Your task to perform on an android device: Go to display settings Image 0: 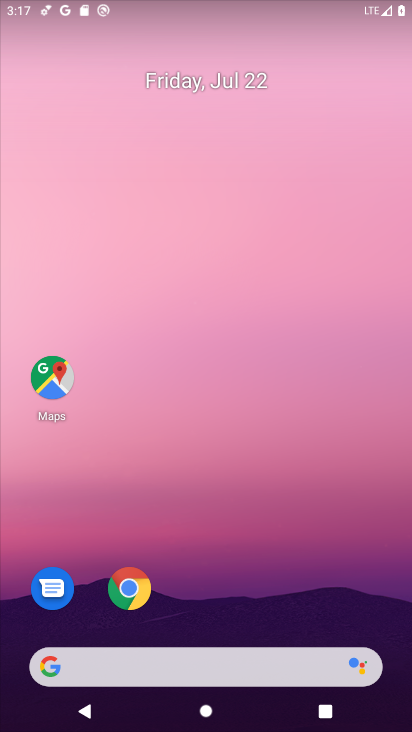
Step 0: drag from (264, 601) to (315, 170)
Your task to perform on an android device: Go to display settings Image 1: 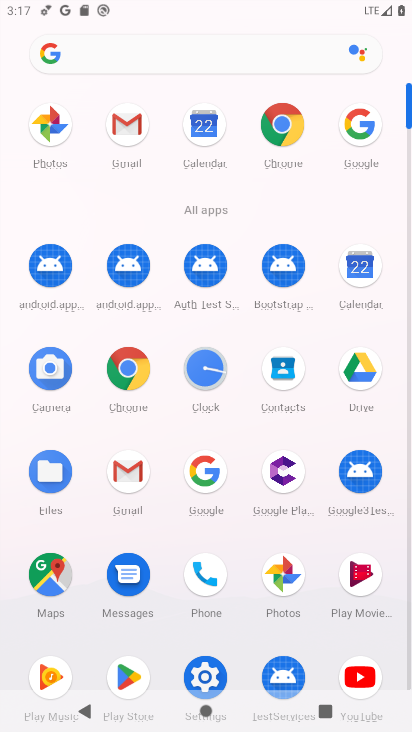
Step 1: click (211, 670)
Your task to perform on an android device: Go to display settings Image 2: 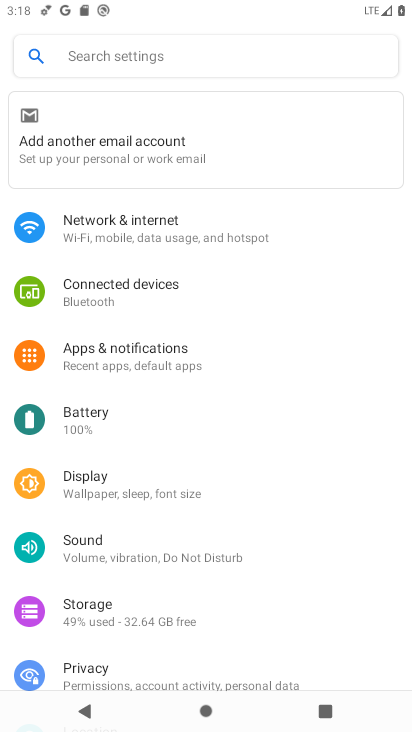
Step 2: drag from (226, 650) to (165, 268)
Your task to perform on an android device: Go to display settings Image 3: 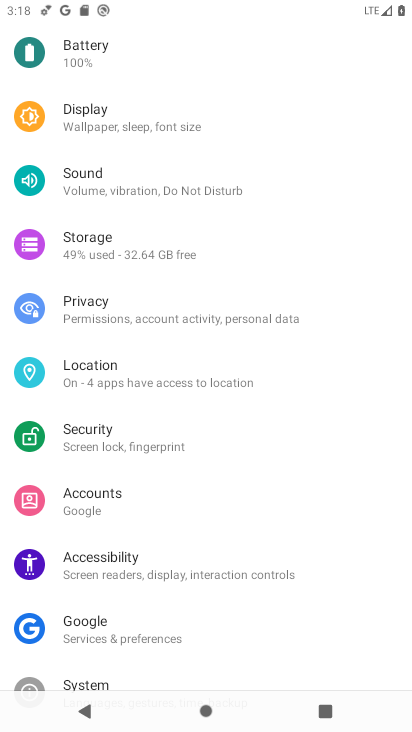
Step 3: click (99, 116)
Your task to perform on an android device: Go to display settings Image 4: 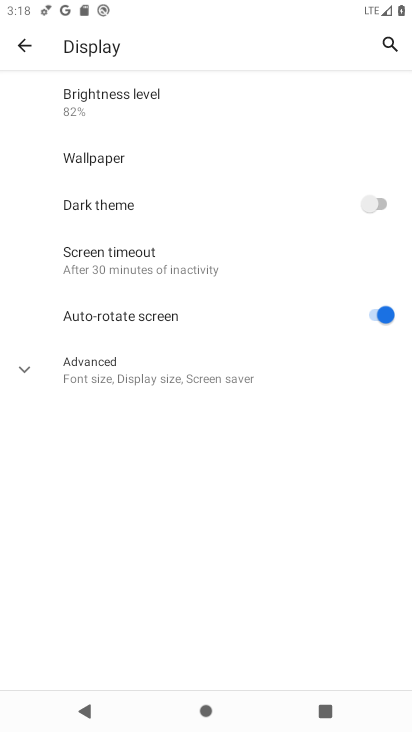
Step 4: task complete